Your task to perform on an android device: find photos in the google photos app Image 0: 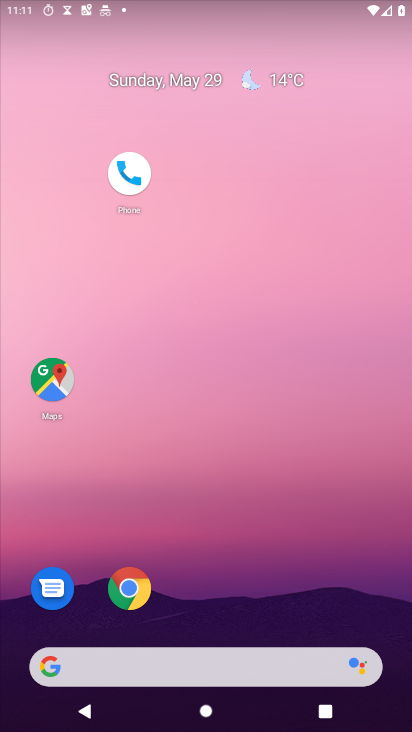
Step 0: drag from (240, 669) to (171, 207)
Your task to perform on an android device: find photos in the google photos app Image 1: 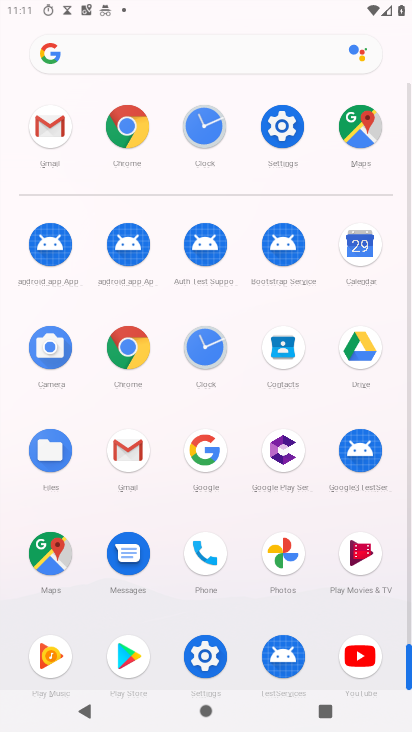
Step 1: click (288, 548)
Your task to perform on an android device: find photos in the google photos app Image 2: 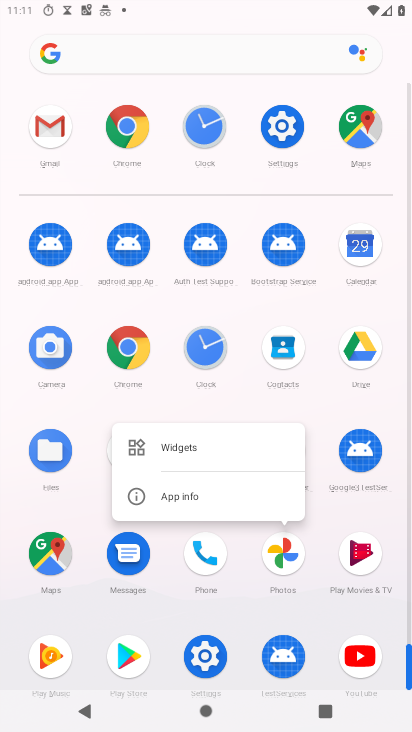
Step 2: click (290, 541)
Your task to perform on an android device: find photos in the google photos app Image 3: 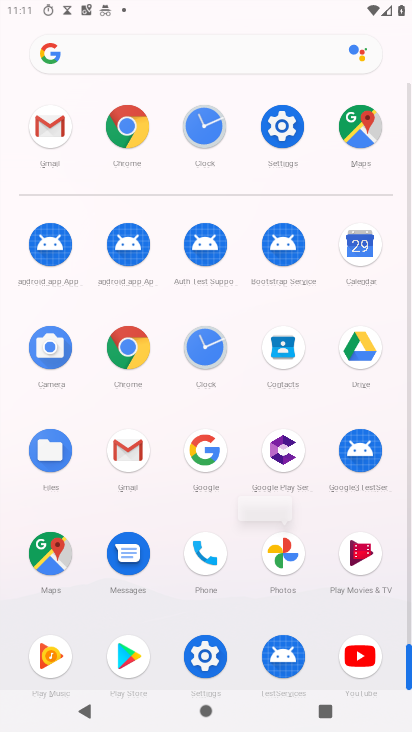
Step 3: click (285, 551)
Your task to perform on an android device: find photos in the google photos app Image 4: 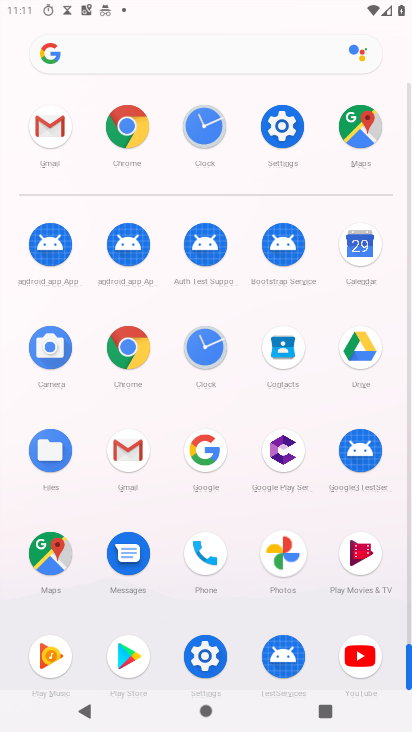
Step 4: click (285, 551)
Your task to perform on an android device: find photos in the google photos app Image 5: 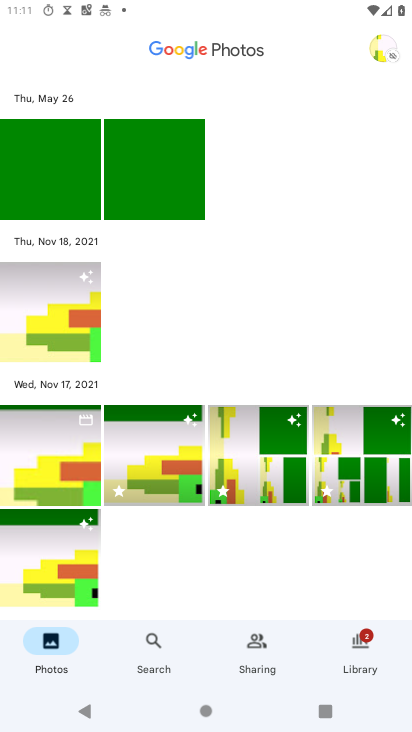
Step 5: task complete